Your task to perform on an android device: Open Chrome and go to settings Image 0: 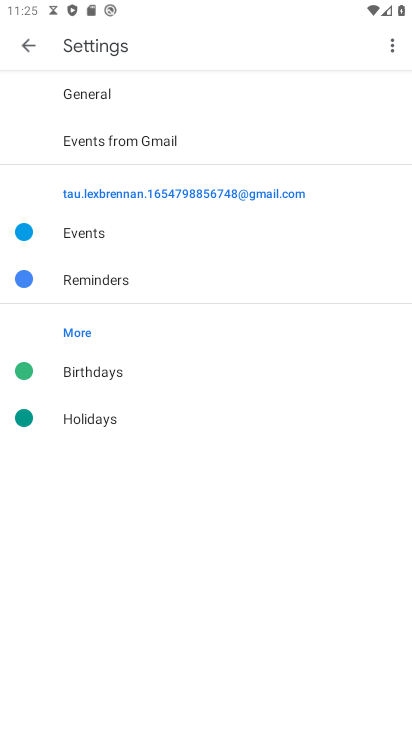
Step 0: press home button
Your task to perform on an android device: Open Chrome and go to settings Image 1: 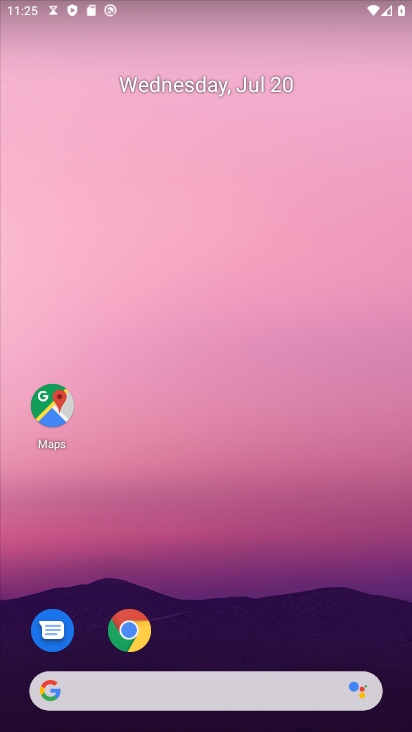
Step 1: click (110, 626)
Your task to perform on an android device: Open Chrome and go to settings Image 2: 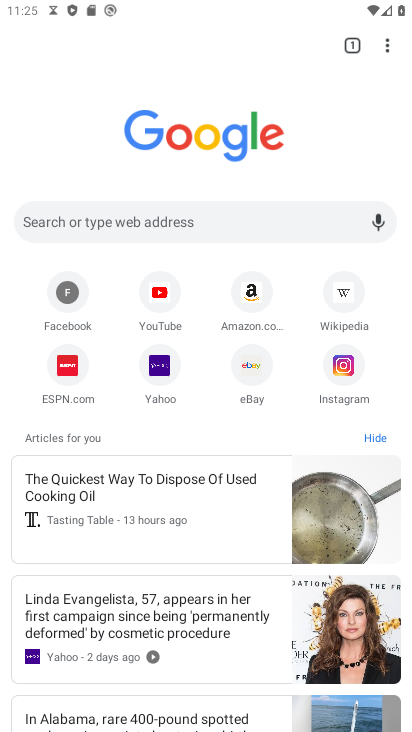
Step 2: click (387, 37)
Your task to perform on an android device: Open Chrome and go to settings Image 3: 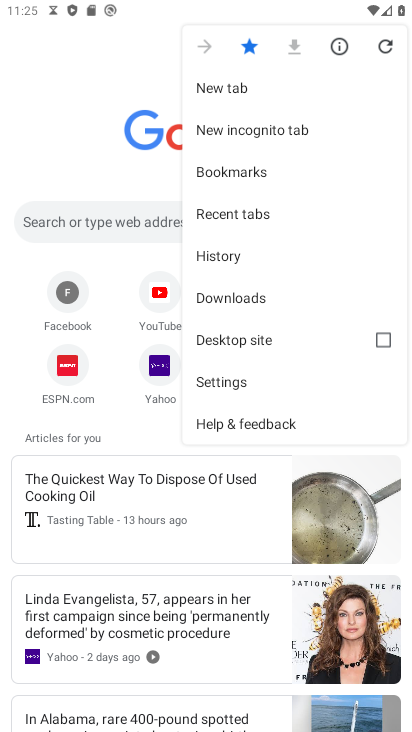
Step 3: click (240, 380)
Your task to perform on an android device: Open Chrome and go to settings Image 4: 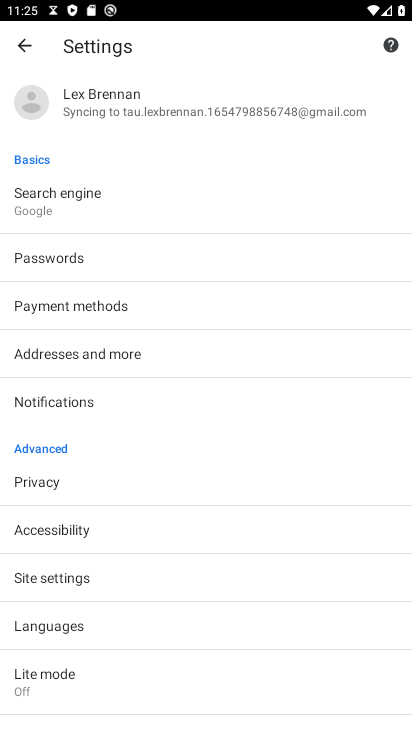
Step 4: task complete